Your task to perform on an android device: Check the news Image 0: 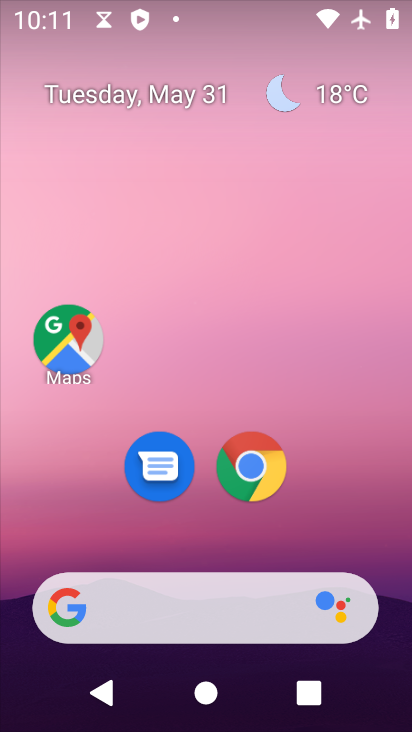
Step 0: click (247, 459)
Your task to perform on an android device: Check the news Image 1: 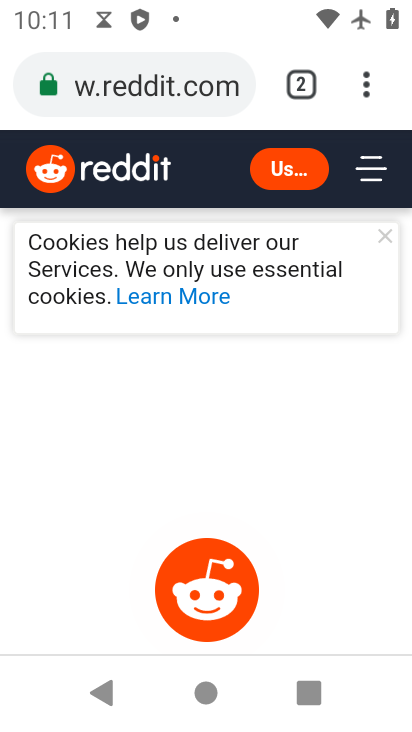
Step 1: click (151, 86)
Your task to perform on an android device: Check the news Image 2: 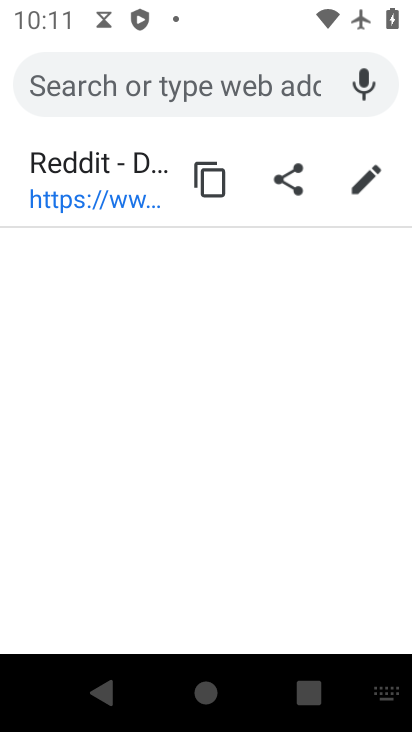
Step 2: type "Check the news"
Your task to perform on an android device: Check the news Image 3: 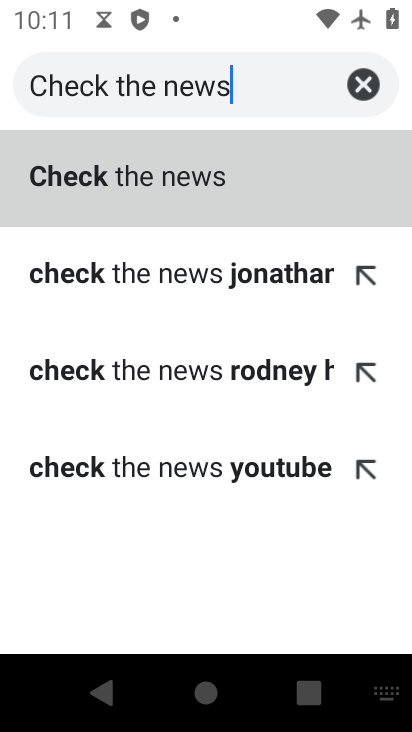
Step 3: type ""
Your task to perform on an android device: Check the news Image 4: 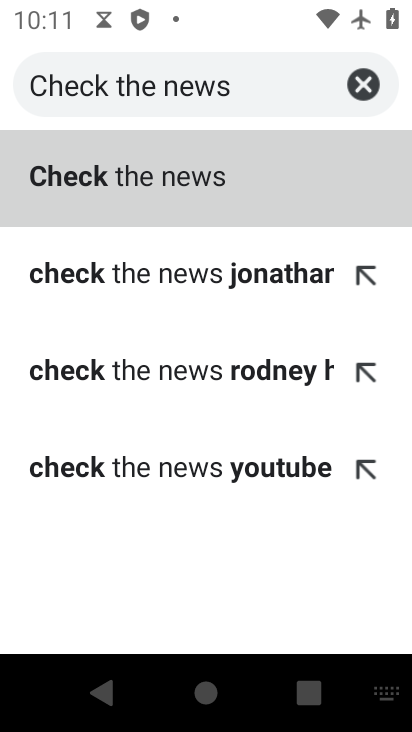
Step 4: click (193, 190)
Your task to perform on an android device: Check the news Image 5: 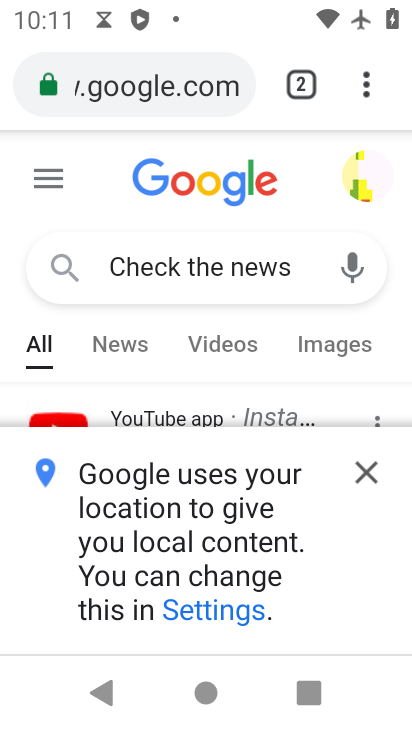
Step 5: click (357, 479)
Your task to perform on an android device: Check the news Image 6: 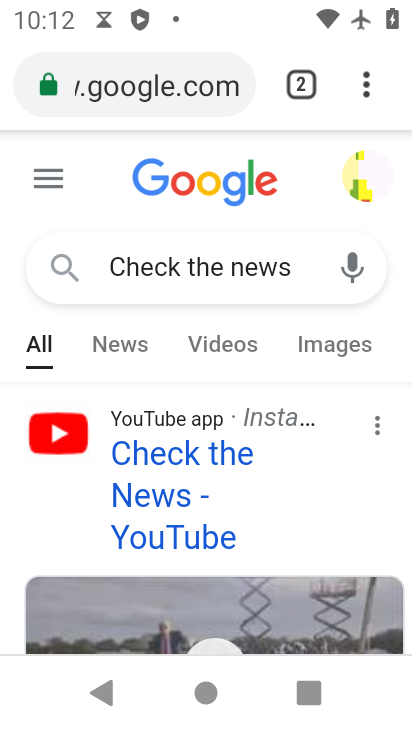
Step 6: drag from (337, 572) to (287, 237)
Your task to perform on an android device: Check the news Image 7: 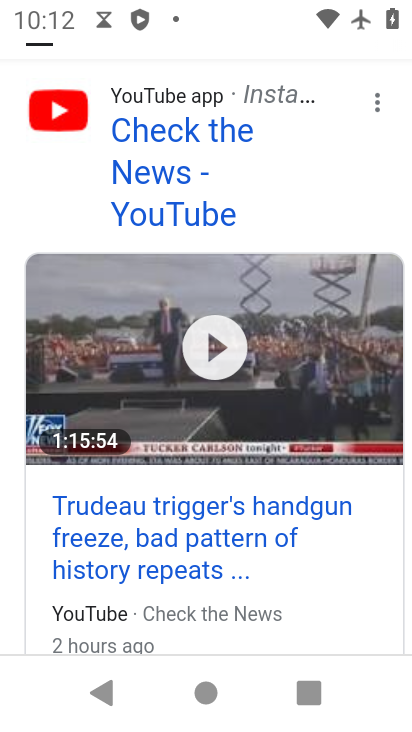
Step 7: drag from (321, 535) to (1, 537)
Your task to perform on an android device: Check the news Image 8: 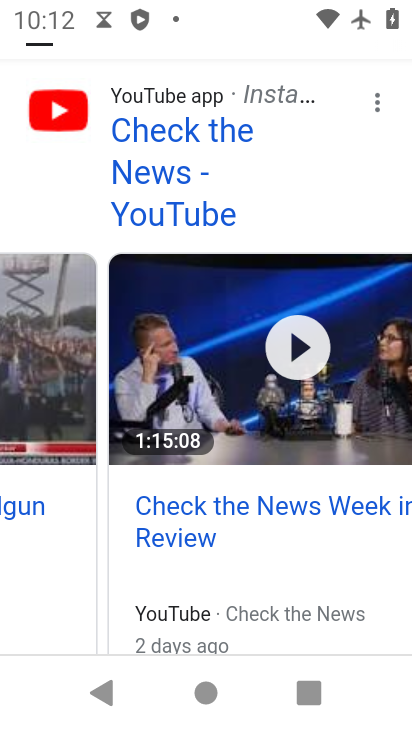
Step 8: click (3, 490)
Your task to perform on an android device: Check the news Image 9: 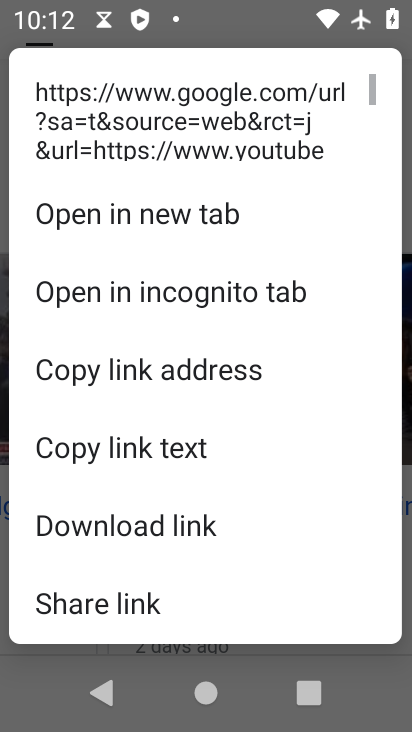
Step 9: task complete